Your task to perform on an android device: Check the news Image 0: 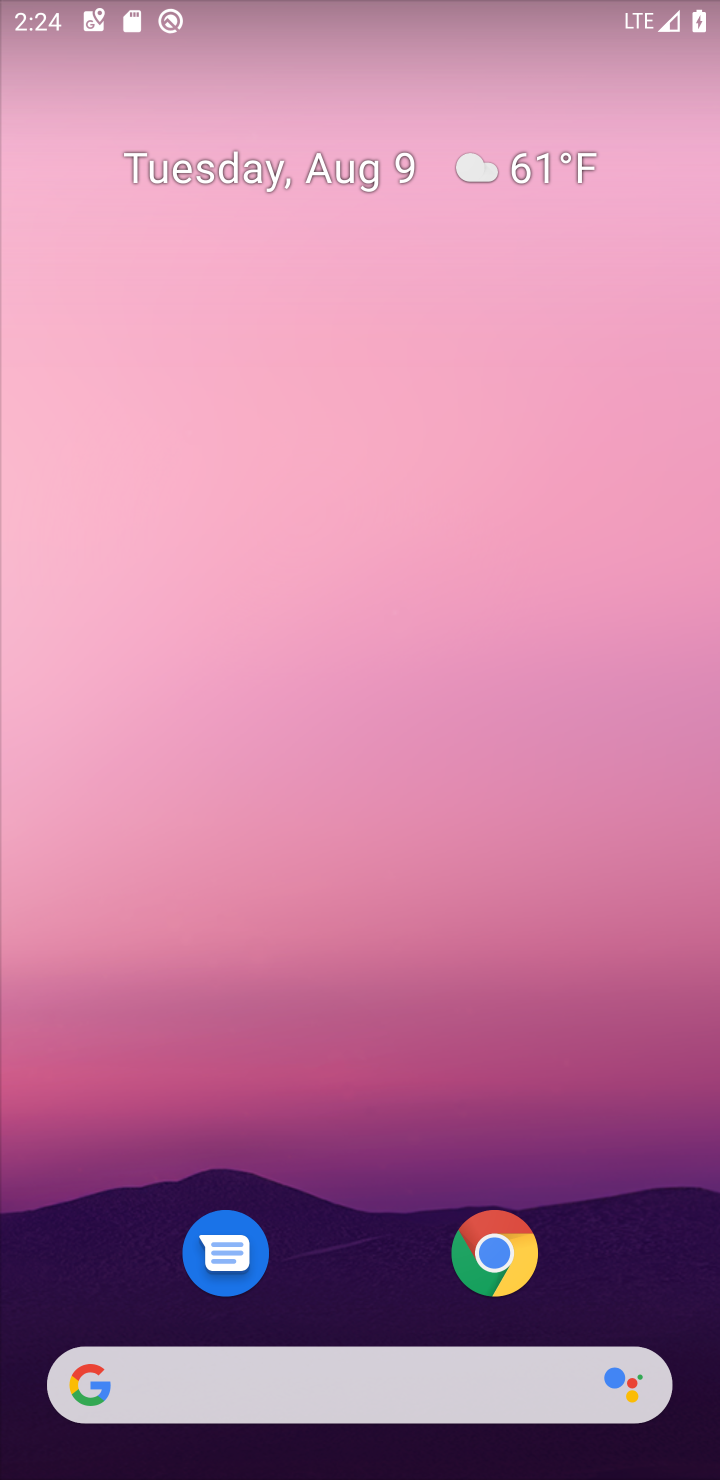
Step 0: drag from (637, 1285) to (234, 6)
Your task to perform on an android device: Check the news Image 1: 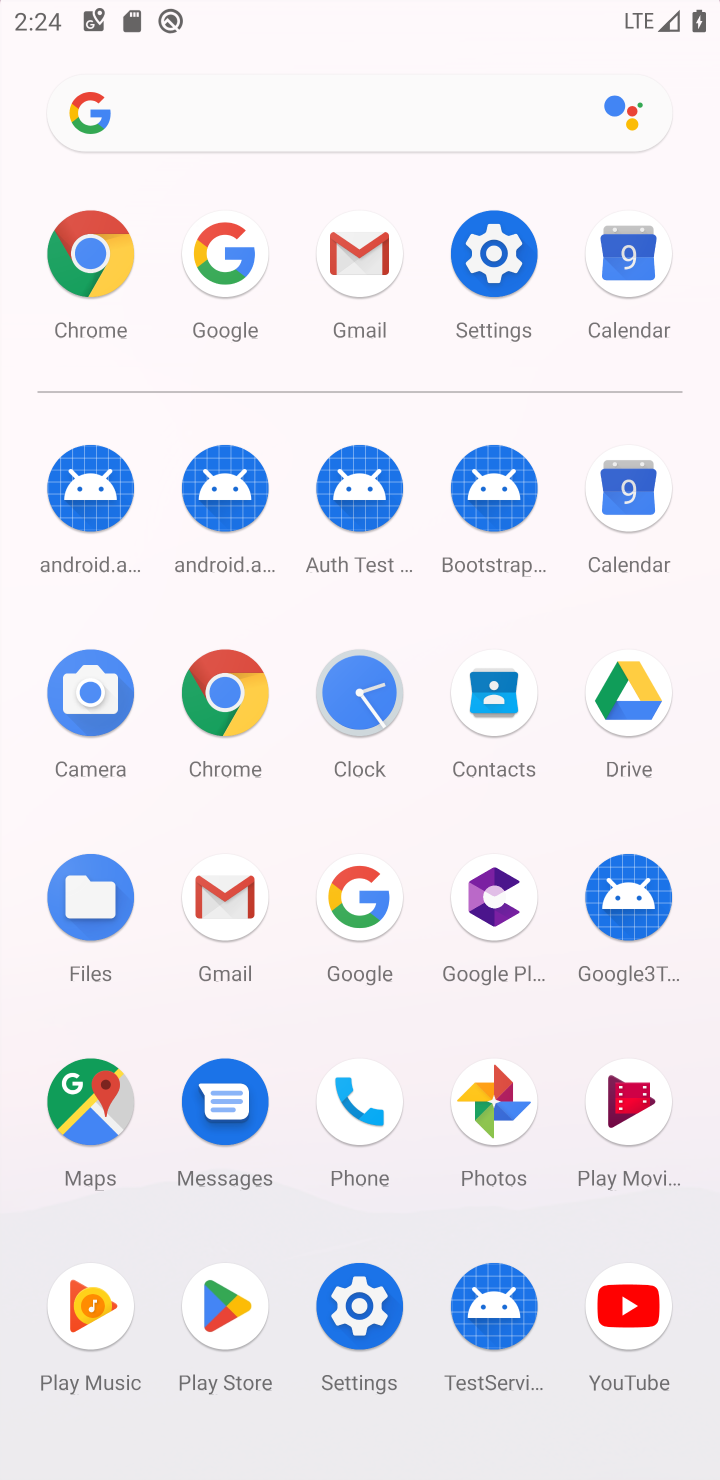
Step 1: click (345, 916)
Your task to perform on an android device: Check the news Image 2: 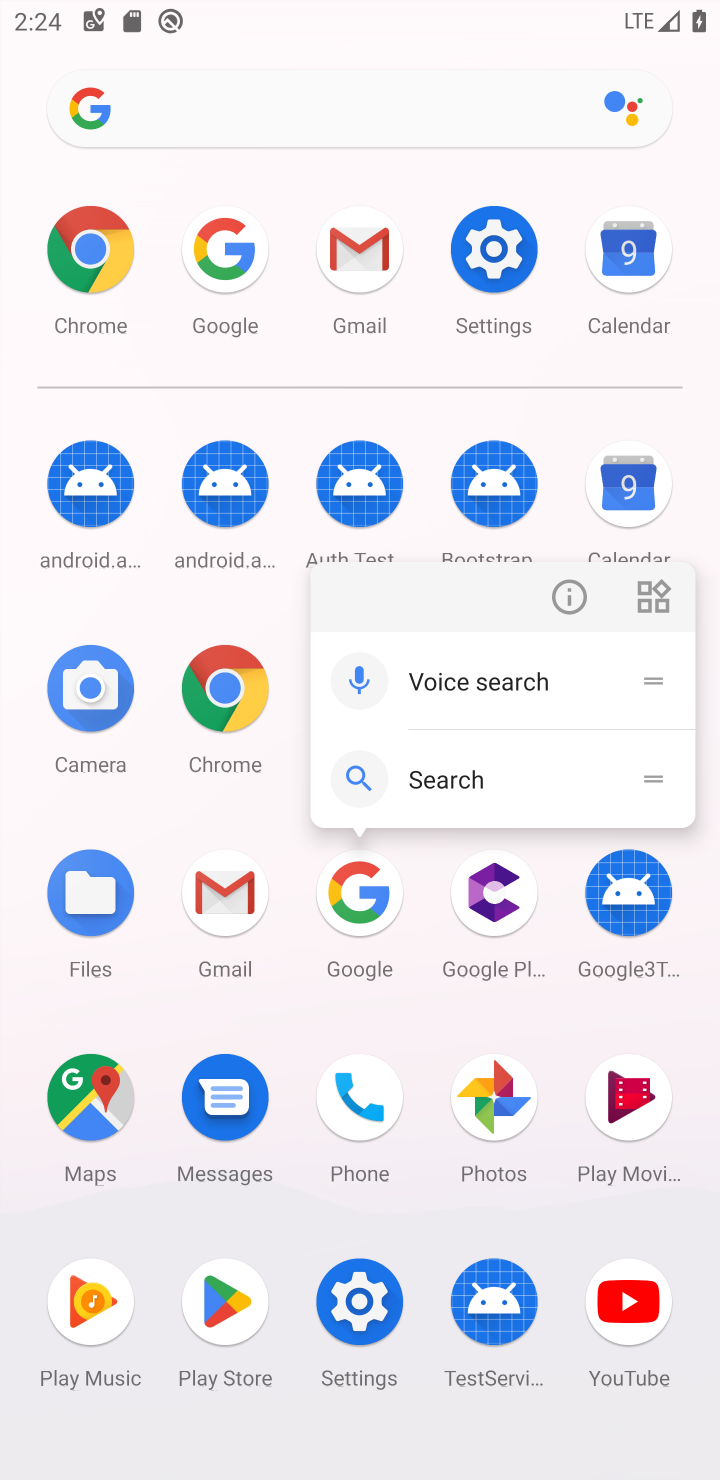
Step 2: click (347, 916)
Your task to perform on an android device: Check the news Image 3: 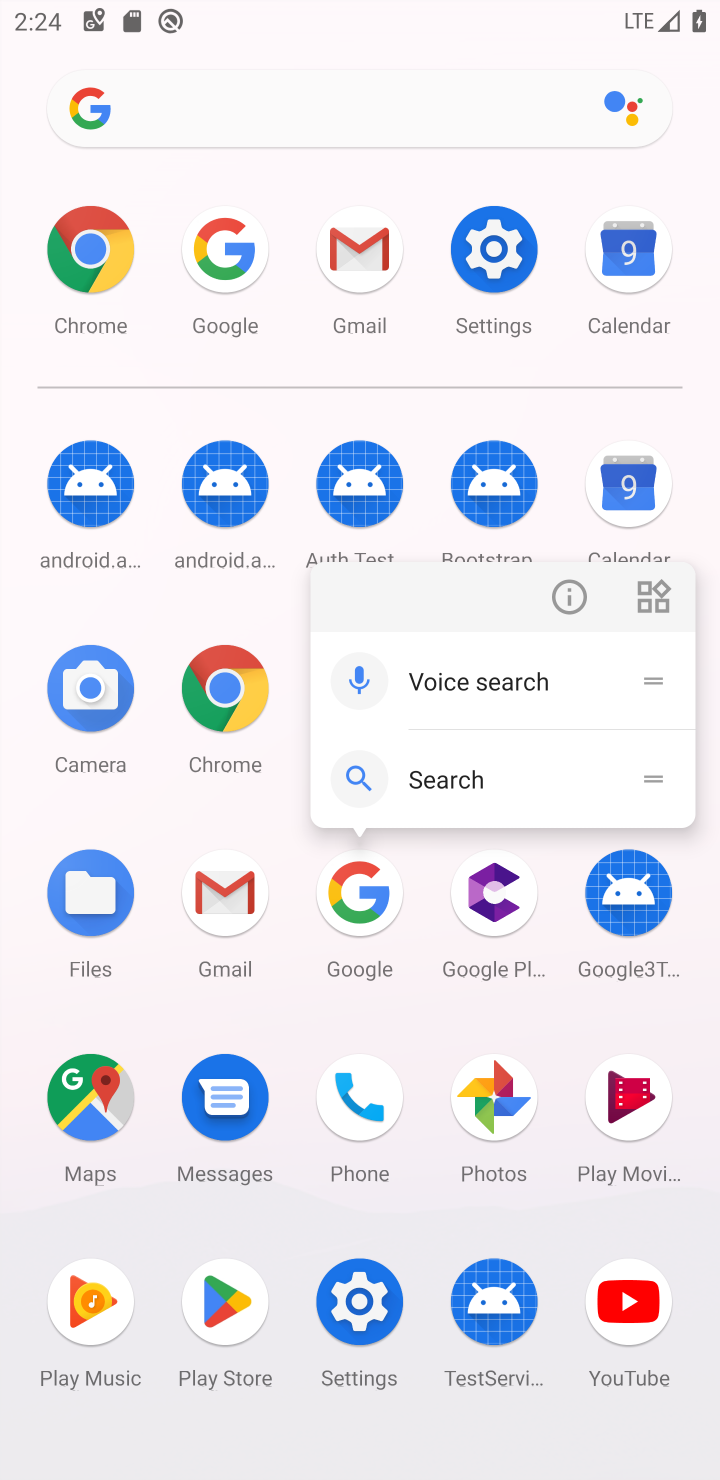
Step 3: click (348, 918)
Your task to perform on an android device: Check the news Image 4: 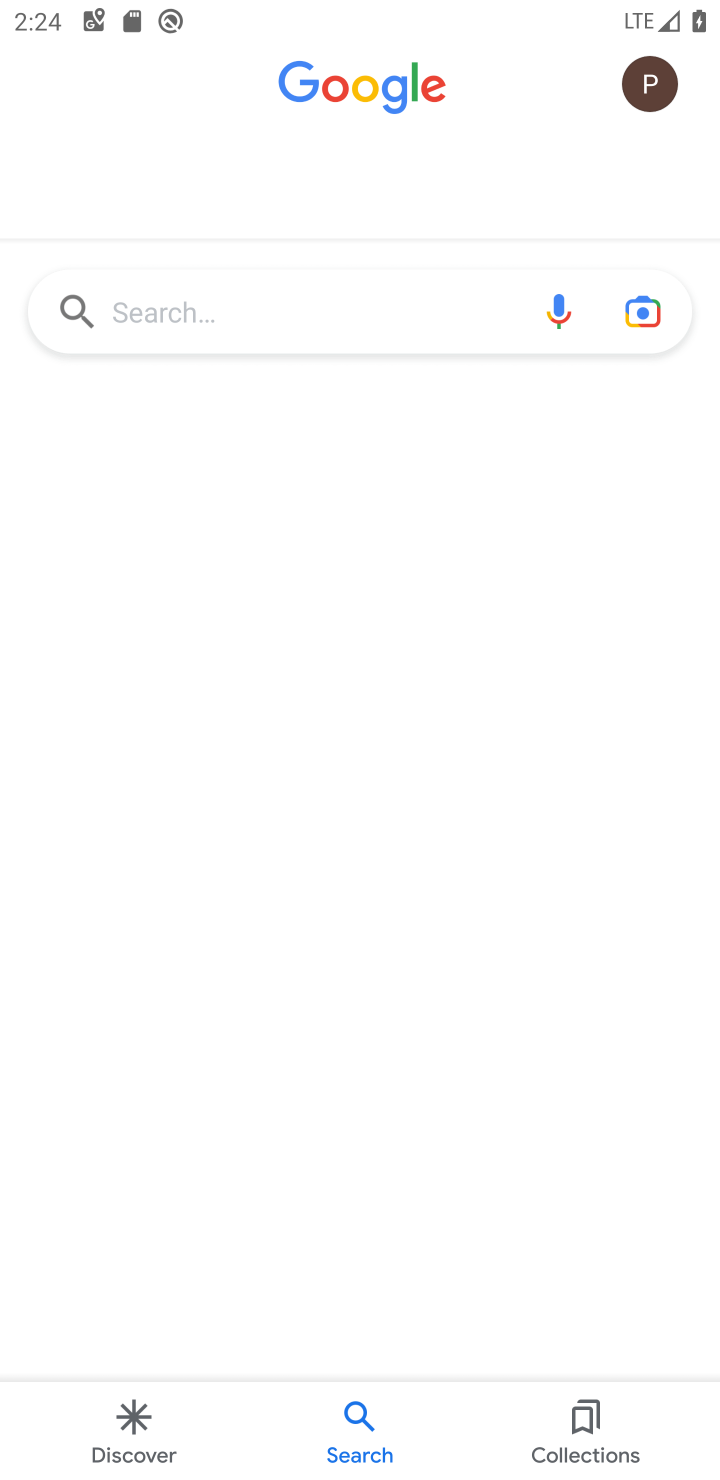
Step 4: click (201, 309)
Your task to perform on an android device: Check the news Image 5: 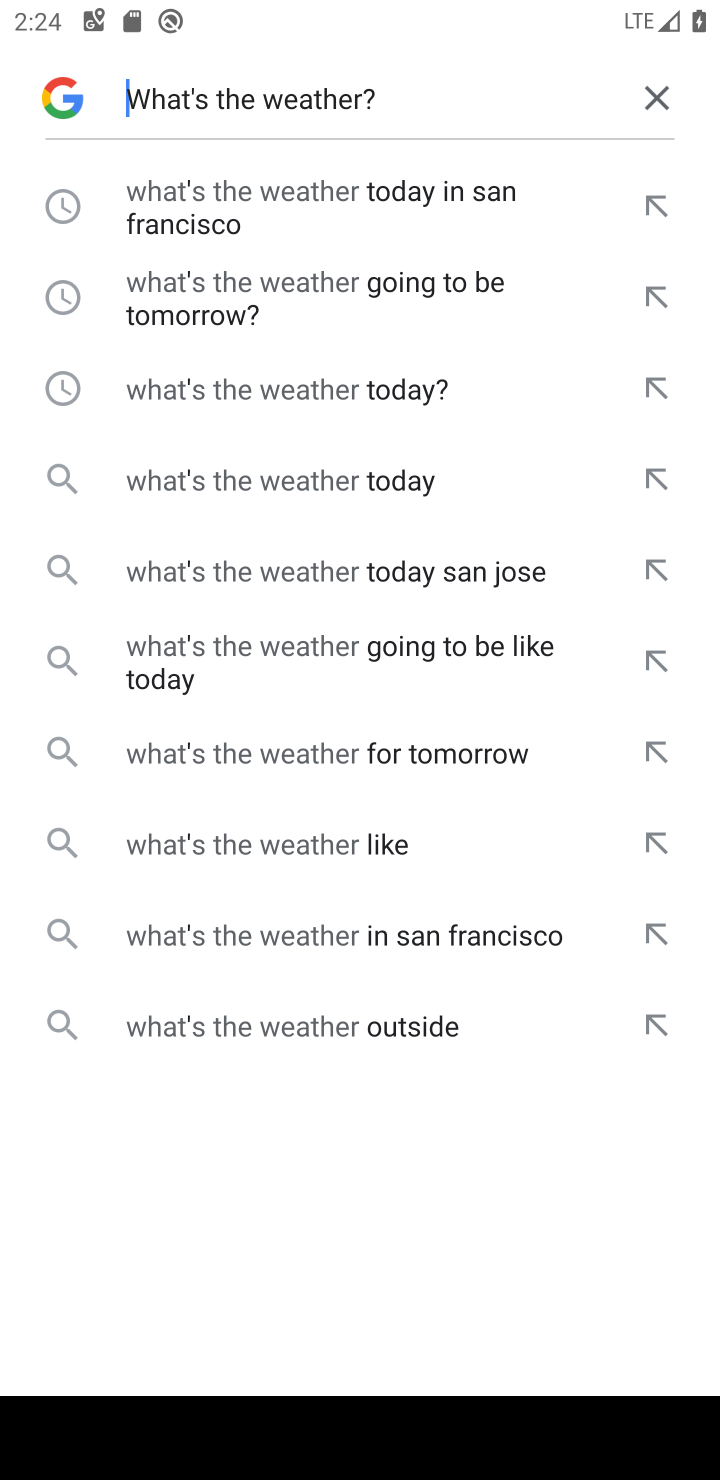
Step 5: click (670, 108)
Your task to perform on an android device: Check the news Image 6: 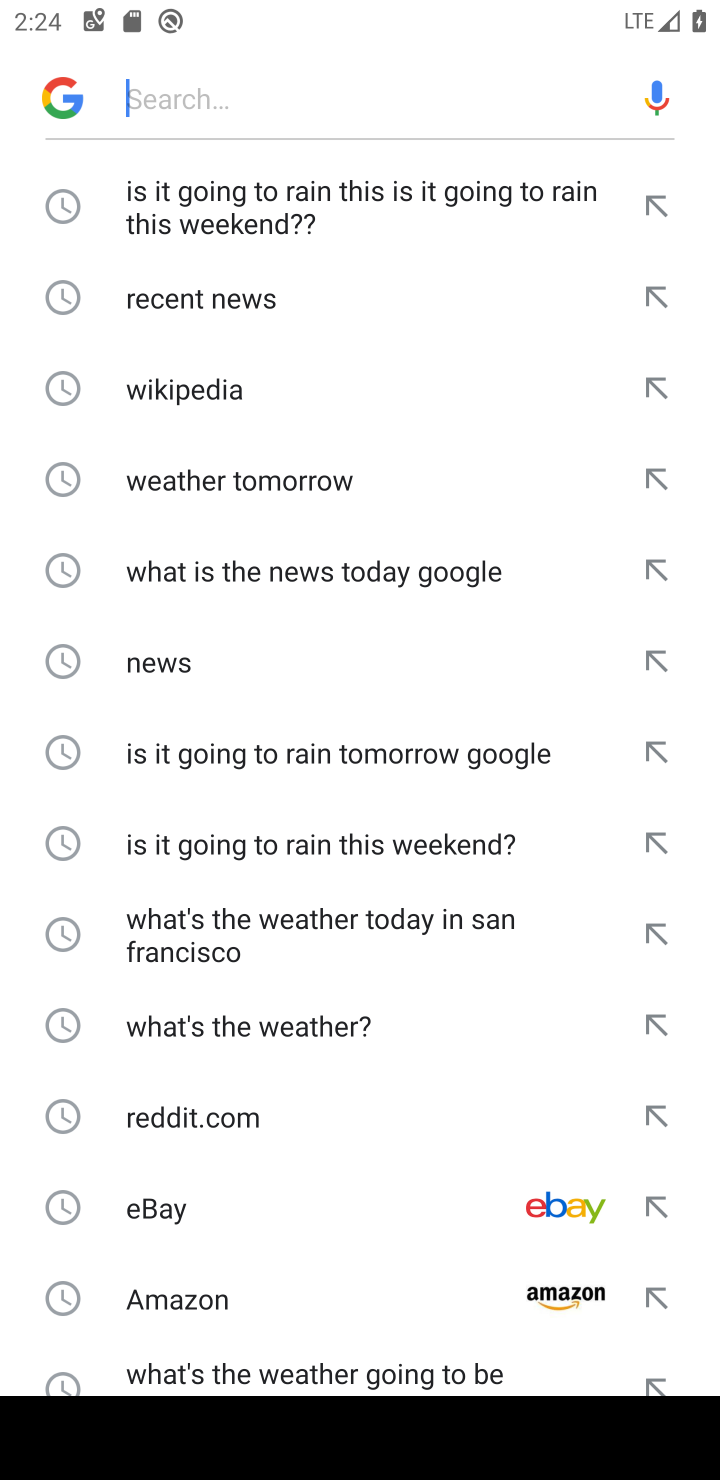
Step 6: type "Check the news"
Your task to perform on an android device: Check the news Image 7: 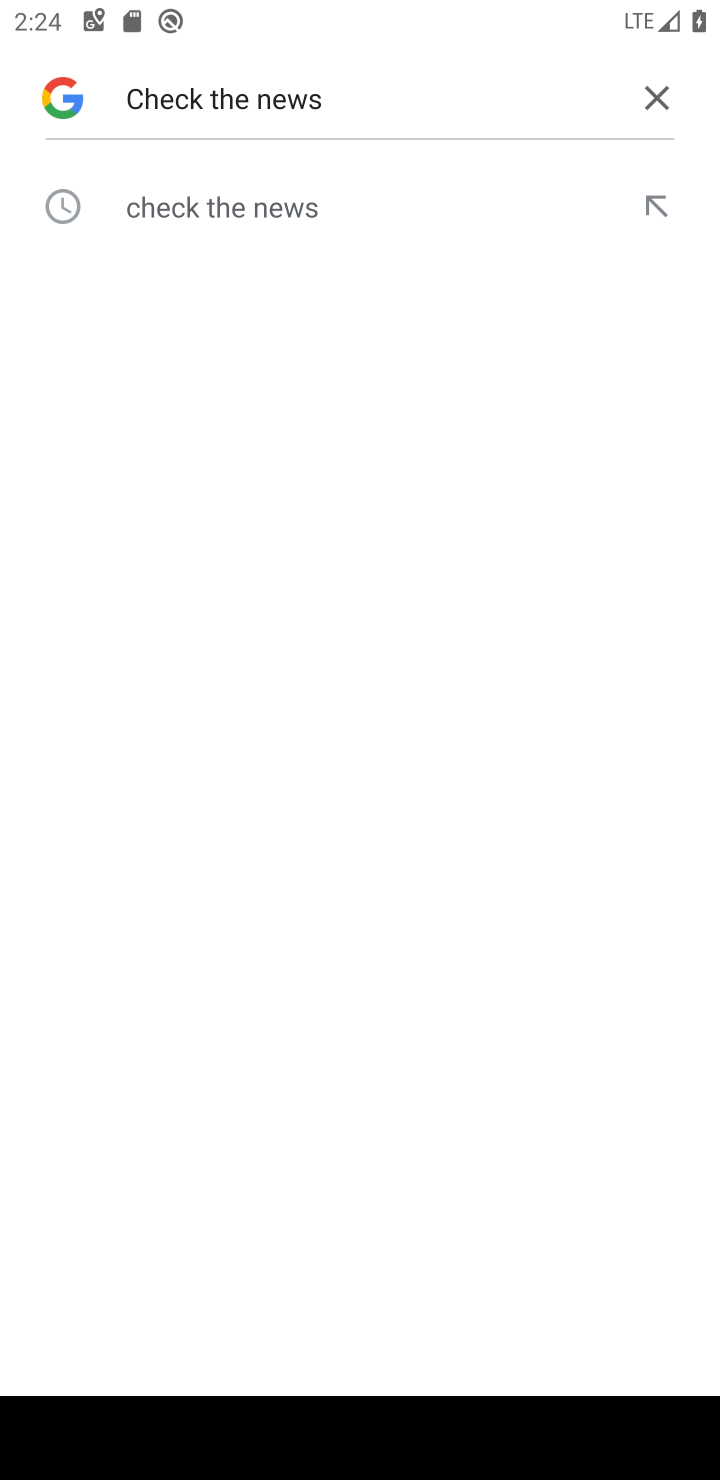
Step 7: click (232, 212)
Your task to perform on an android device: Check the news Image 8: 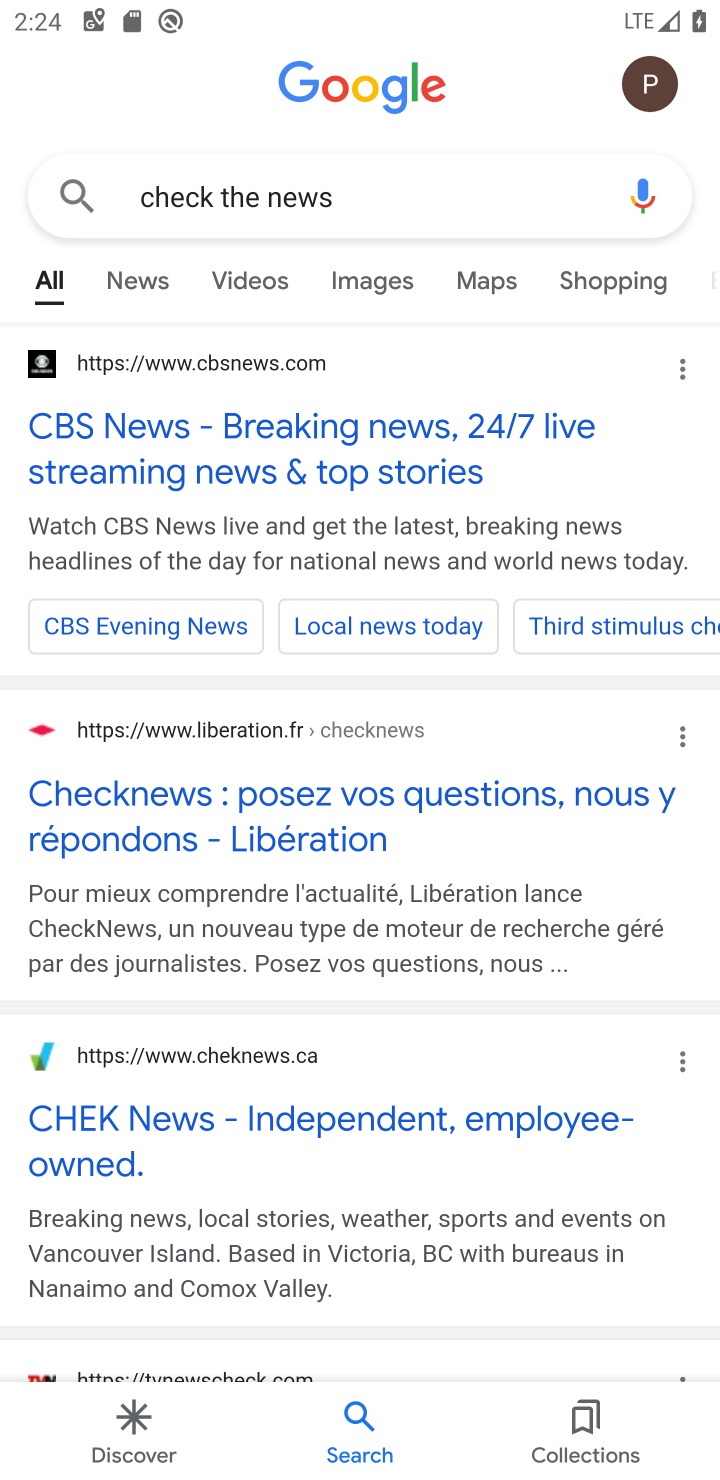
Step 8: task complete